Your task to perform on an android device: Open my contact list Image 0: 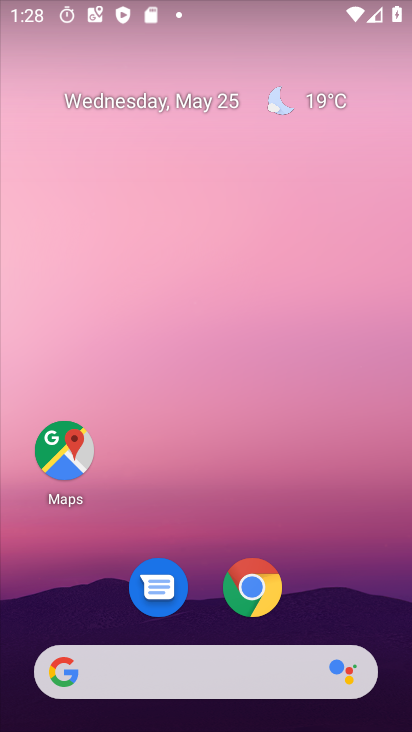
Step 0: drag from (214, 726) to (200, 27)
Your task to perform on an android device: Open my contact list Image 1: 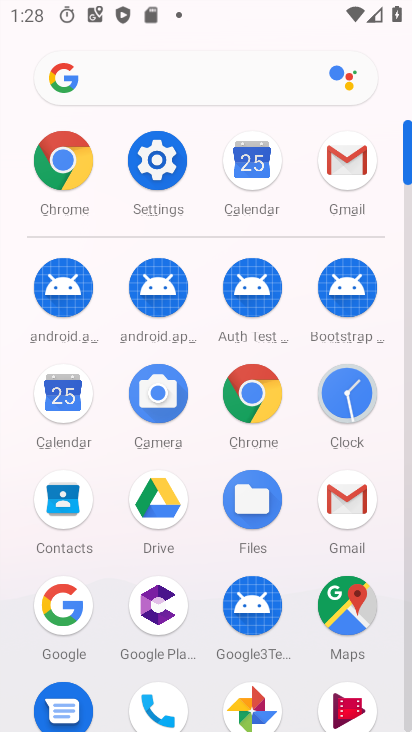
Step 1: click (65, 507)
Your task to perform on an android device: Open my contact list Image 2: 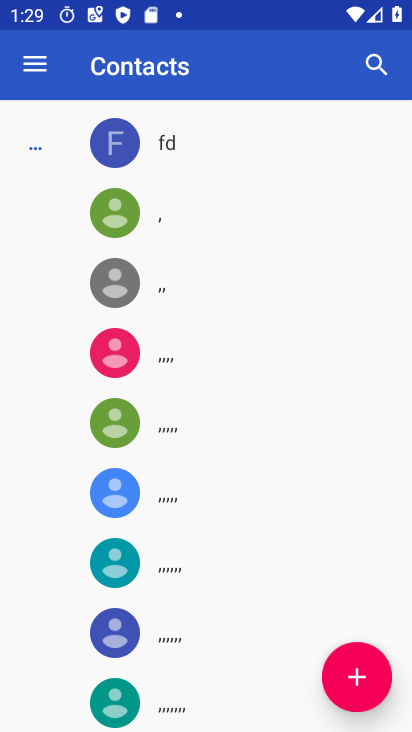
Step 2: task complete